Your task to perform on an android device: Open battery settings Image 0: 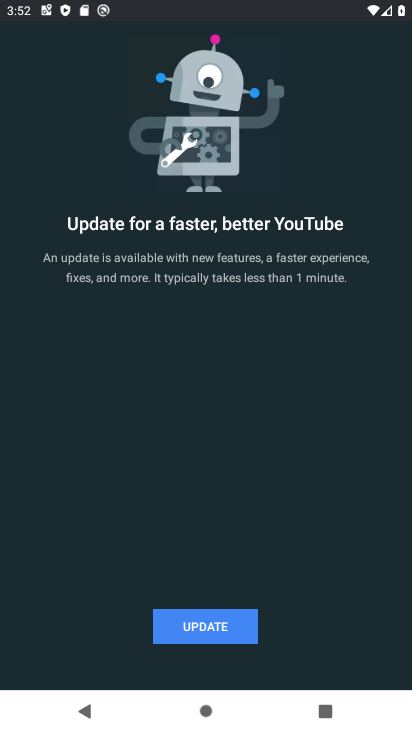
Step 0: press home button
Your task to perform on an android device: Open battery settings Image 1: 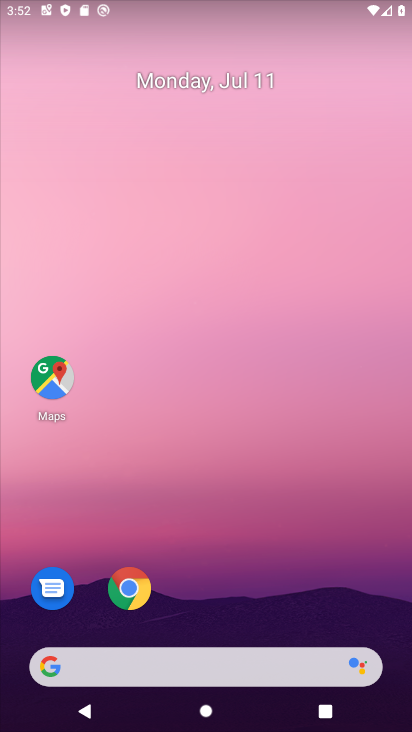
Step 1: drag from (266, 558) to (274, 6)
Your task to perform on an android device: Open battery settings Image 2: 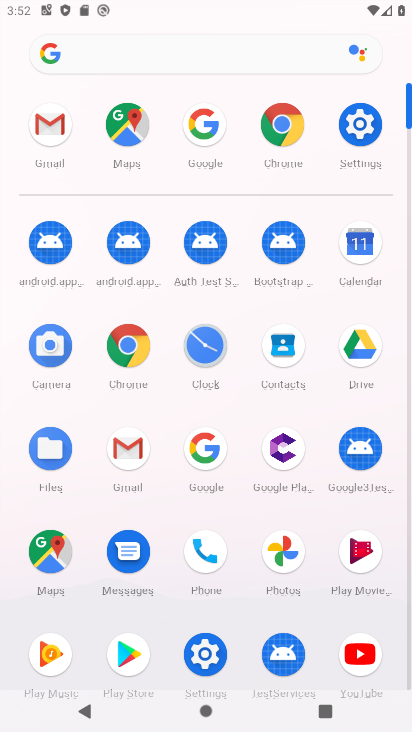
Step 2: click (352, 121)
Your task to perform on an android device: Open battery settings Image 3: 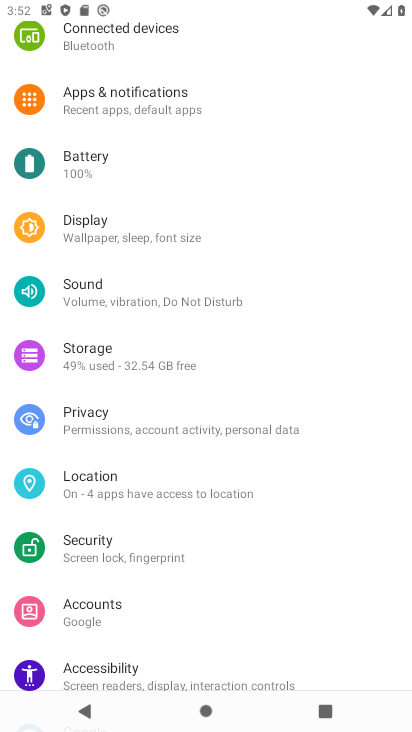
Step 3: drag from (181, 647) to (136, 244)
Your task to perform on an android device: Open battery settings Image 4: 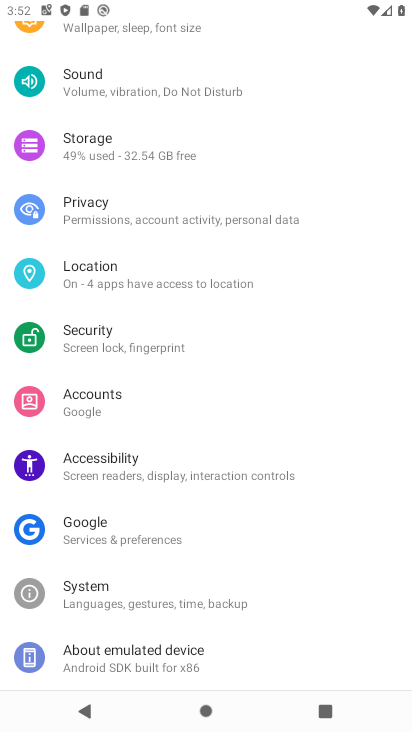
Step 4: drag from (212, 338) to (196, 695)
Your task to perform on an android device: Open battery settings Image 5: 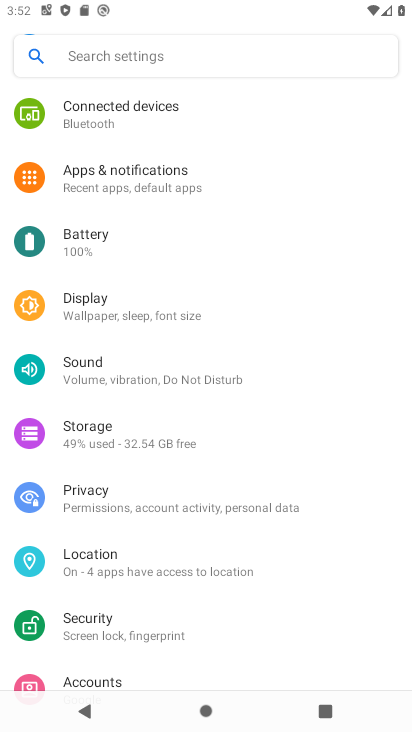
Step 5: click (68, 235)
Your task to perform on an android device: Open battery settings Image 6: 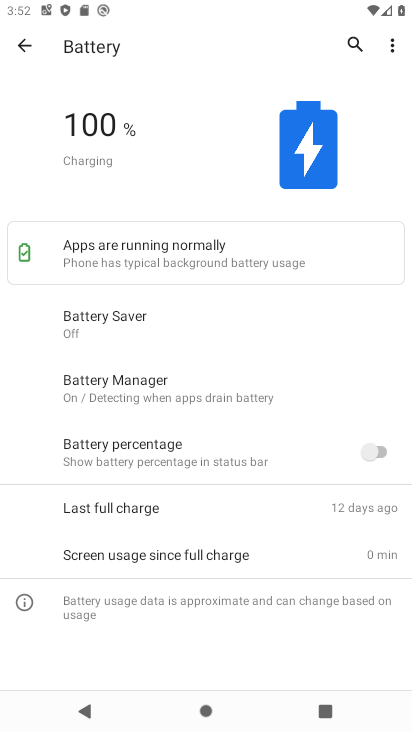
Step 6: task complete